Your task to perform on an android device: clear history in the chrome app Image 0: 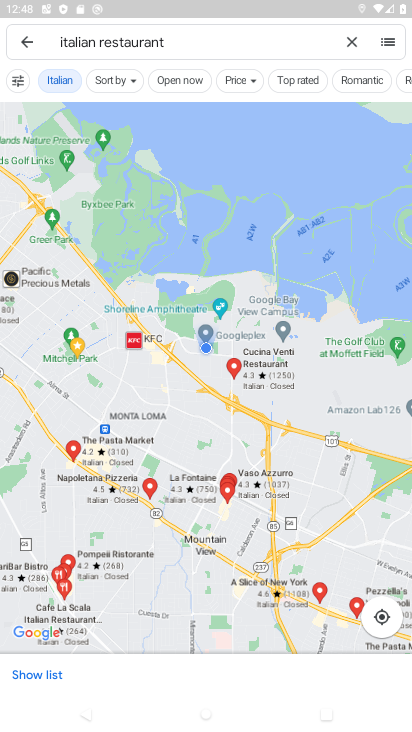
Step 0: press home button
Your task to perform on an android device: clear history in the chrome app Image 1: 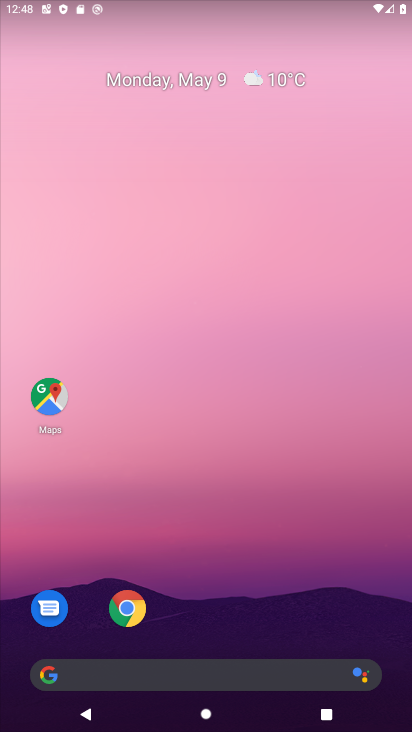
Step 1: drag from (259, 596) to (287, 87)
Your task to perform on an android device: clear history in the chrome app Image 2: 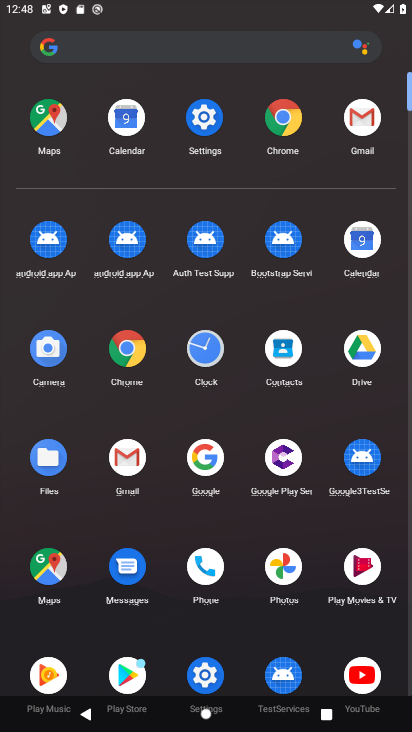
Step 2: click (290, 142)
Your task to perform on an android device: clear history in the chrome app Image 3: 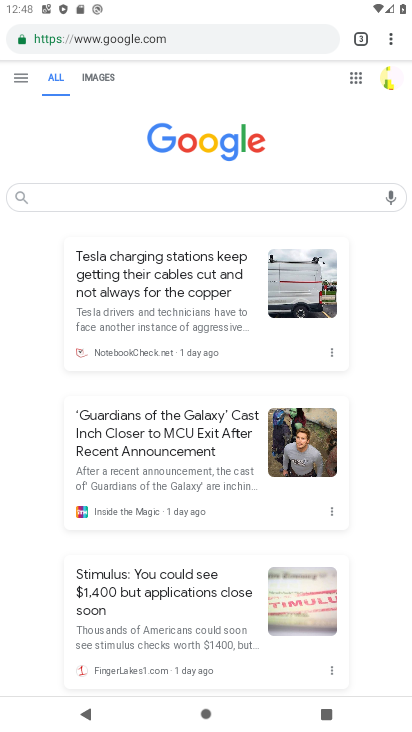
Step 3: click (386, 42)
Your task to perform on an android device: clear history in the chrome app Image 4: 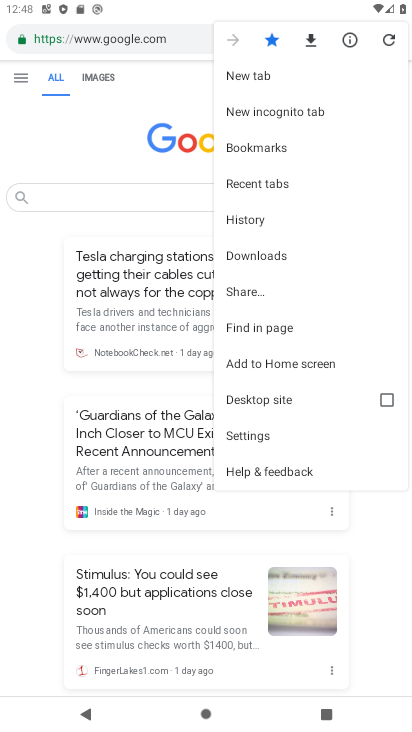
Step 4: click (276, 221)
Your task to perform on an android device: clear history in the chrome app Image 5: 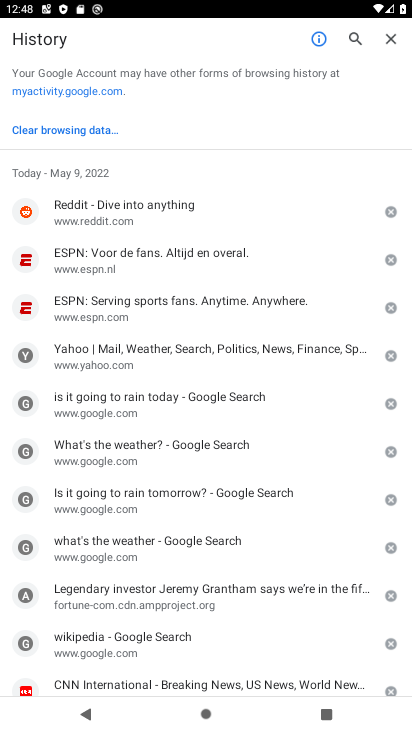
Step 5: click (89, 135)
Your task to perform on an android device: clear history in the chrome app Image 6: 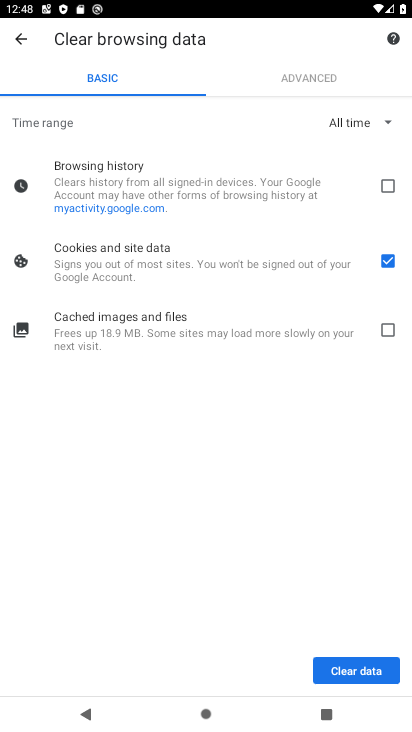
Step 6: click (322, 665)
Your task to perform on an android device: clear history in the chrome app Image 7: 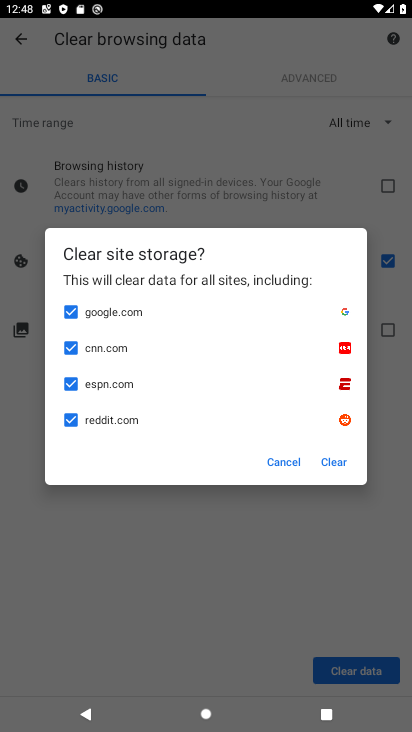
Step 7: click (330, 453)
Your task to perform on an android device: clear history in the chrome app Image 8: 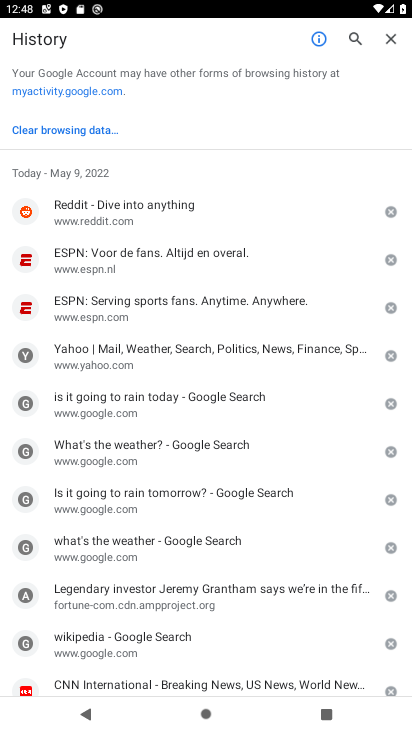
Step 8: task complete